Your task to perform on an android device: Go to notification settings Image 0: 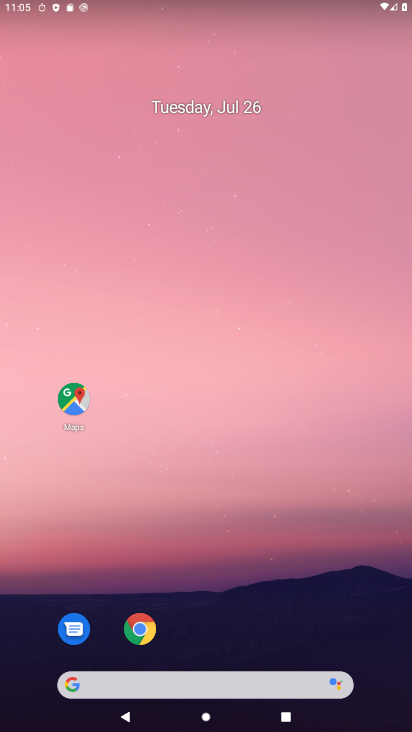
Step 0: drag from (341, 612) to (210, 25)
Your task to perform on an android device: Go to notification settings Image 1: 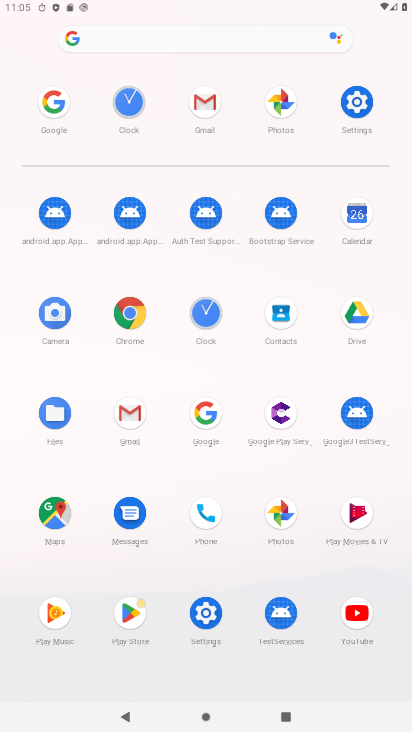
Step 1: click (194, 616)
Your task to perform on an android device: Go to notification settings Image 2: 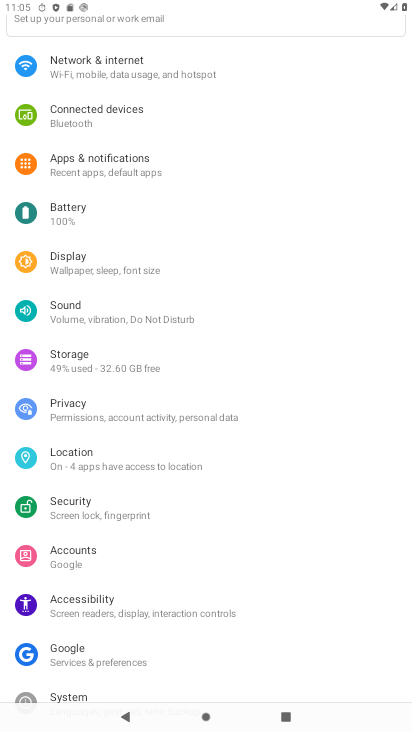
Step 2: click (114, 168)
Your task to perform on an android device: Go to notification settings Image 3: 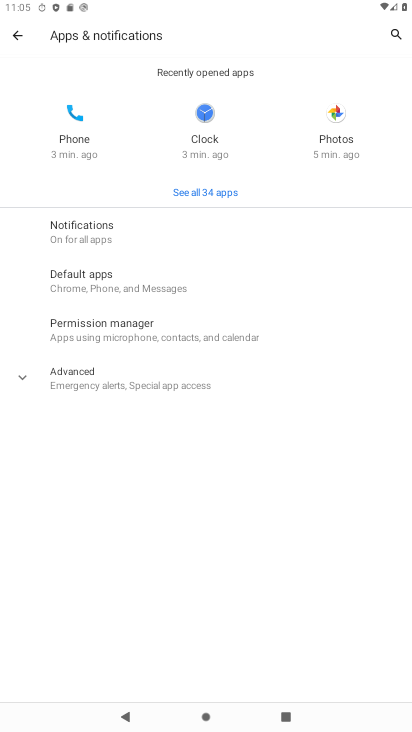
Step 3: click (145, 237)
Your task to perform on an android device: Go to notification settings Image 4: 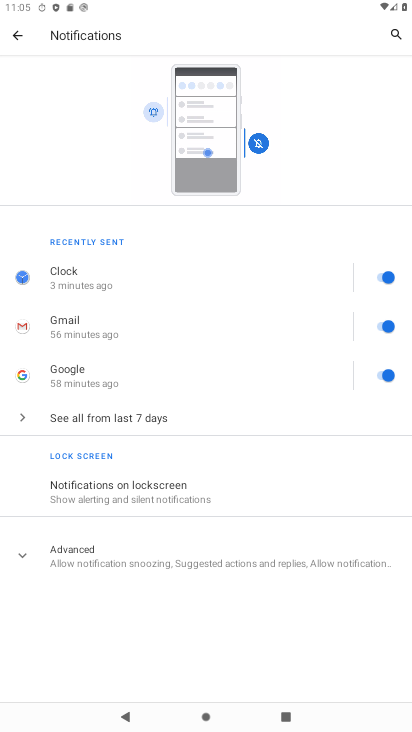
Step 4: task complete